Your task to perform on an android device: Open Youtube and go to "Your channel" Image 0: 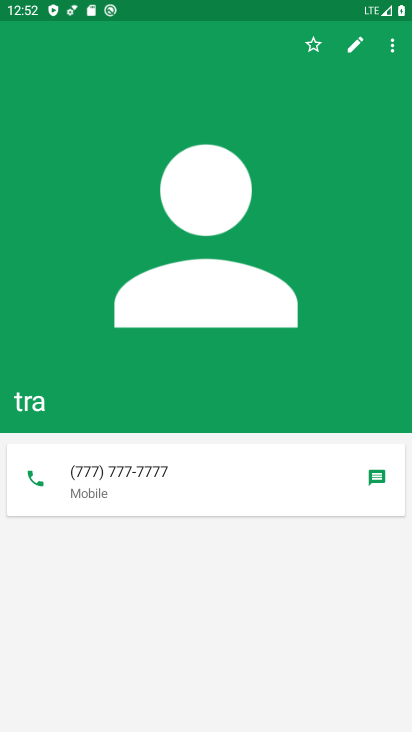
Step 0: press home button
Your task to perform on an android device: Open Youtube and go to "Your channel" Image 1: 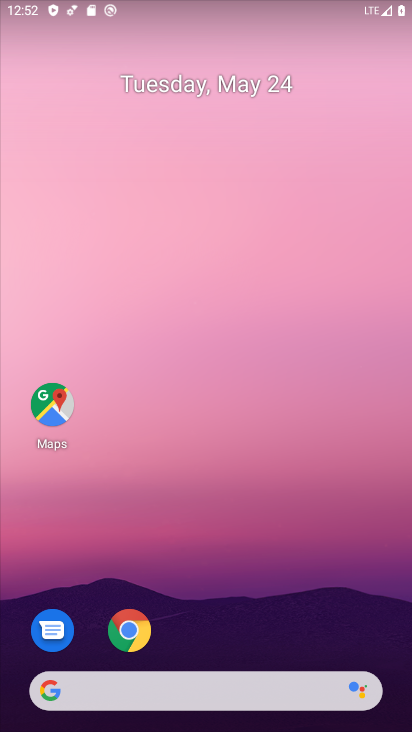
Step 1: drag from (267, 609) to (275, 0)
Your task to perform on an android device: Open Youtube and go to "Your channel" Image 2: 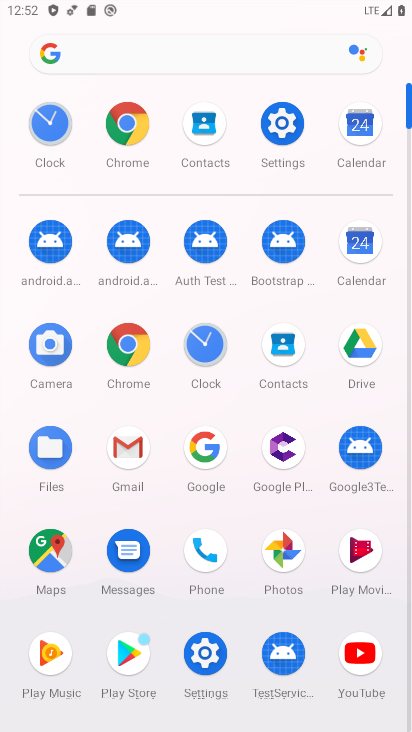
Step 2: click (362, 667)
Your task to perform on an android device: Open Youtube and go to "Your channel" Image 3: 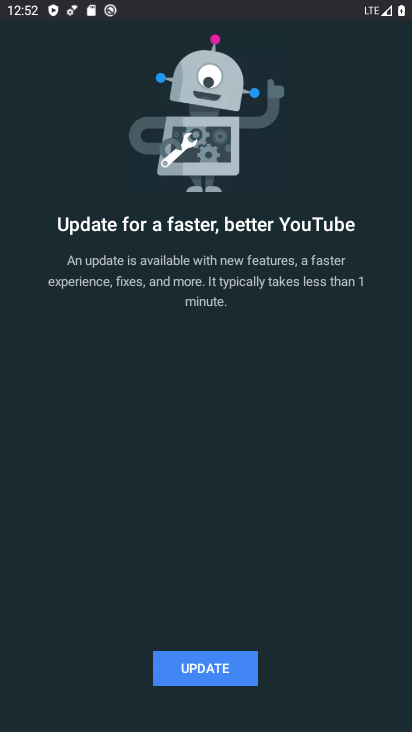
Step 3: click (225, 673)
Your task to perform on an android device: Open Youtube and go to "Your channel" Image 4: 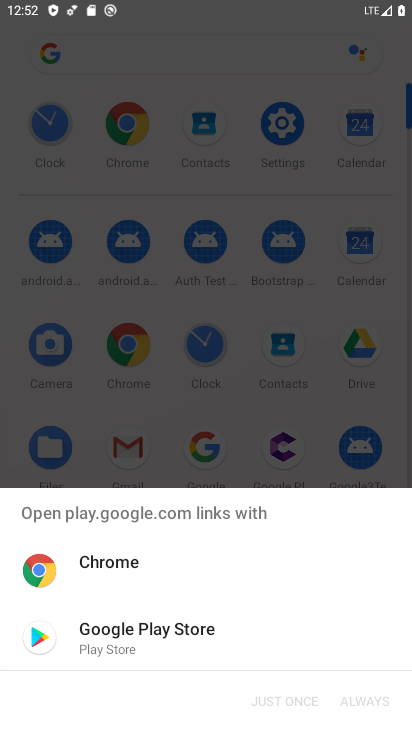
Step 4: click (256, 629)
Your task to perform on an android device: Open Youtube and go to "Your channel" Image 5: 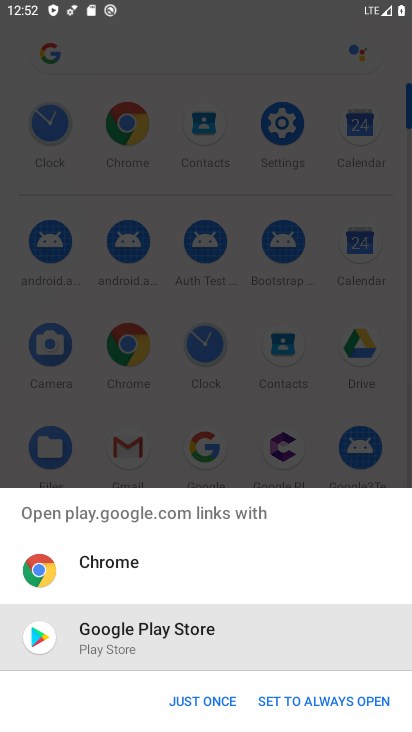
Step 5: click (215, 706)
Your task to perform on an android device: Open Youtube and go to "Your channel" Image 6: 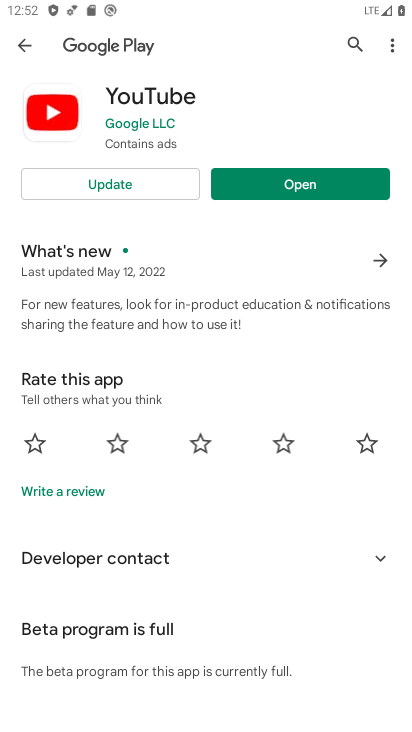
Step 6: click (113, 181)
Your task to perform on an android device: Open Youtube and go to "Your channel" Image 7: 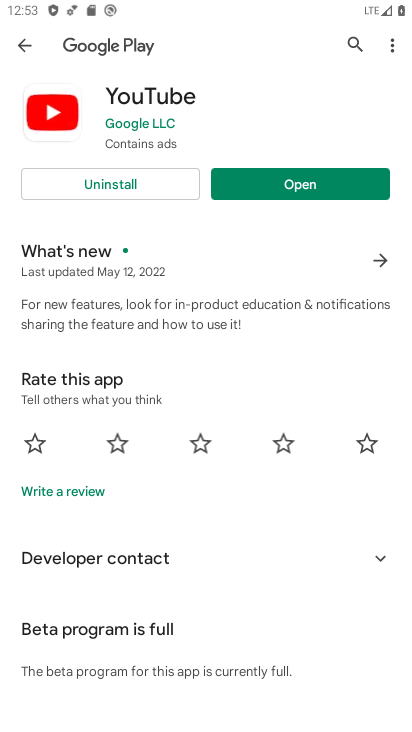
Step 7: click (290, 179)
Your task to perform on an android device: Open Youtube and go to "Your channel" Image 8: 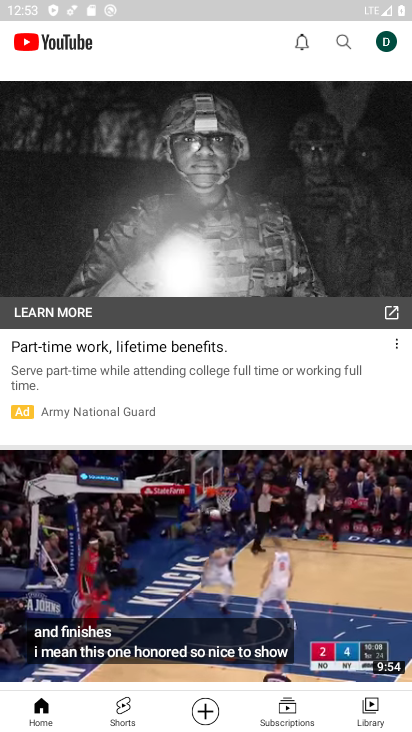
Step 8: click (388, 49)
Your task to perform on an android device: Open Youtube and go to "Your channel" Image 9: 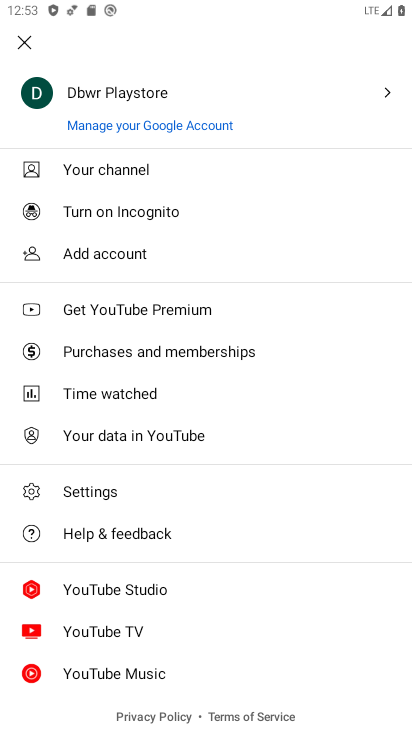
Step 9: click (157, 170)
Your task to perform on an android device: Open Youtube and go to "Your channel" Image 10: 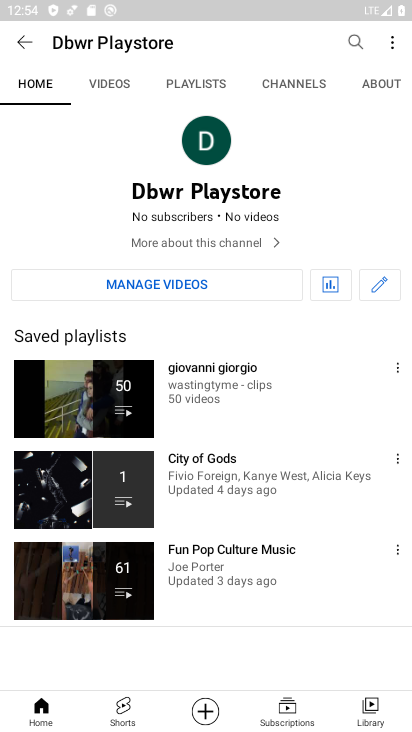
Step 10: task complete